Your task to perform on an android device: toggle translation in the chrome app Image 0: 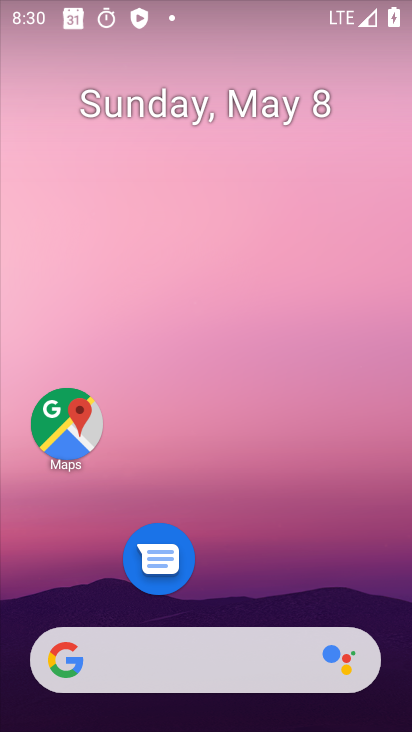
Step 0: drag from (350, 635) to (305, 33)
Your task to perform on an android device: toggle translation in the chrome app Image 1: 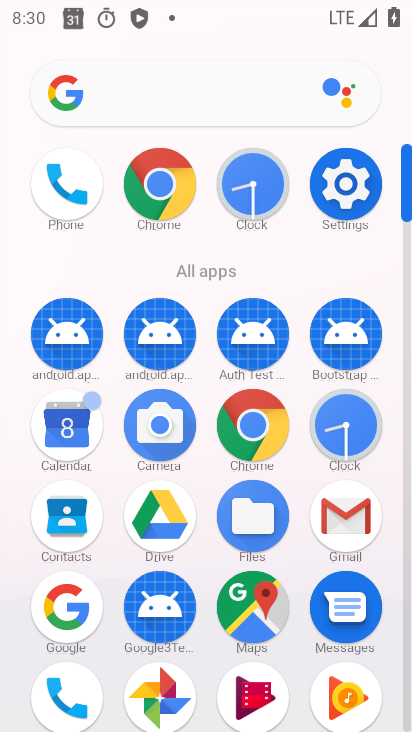
Step 1: click (271, 414)
Your task to perform on an android device: toggle translation in the chrome app Image 2: 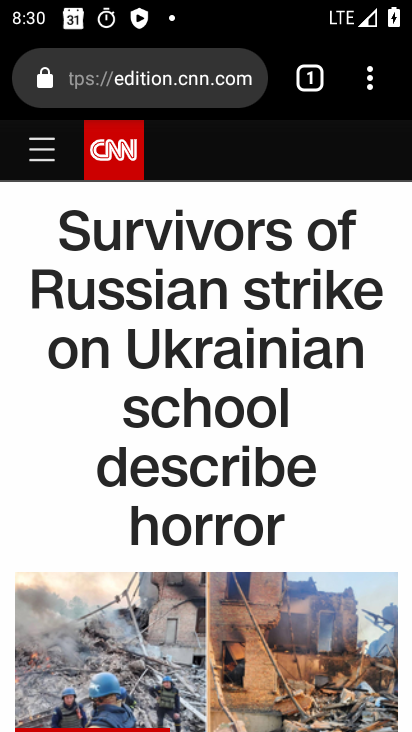
Step 2: drag from (366, 73) to (195, 628)
Your task to perform on an android device: toggle translation in the chrome app Image 3: 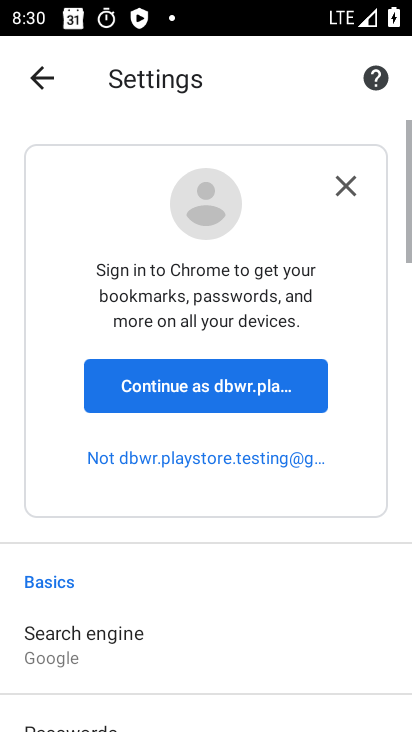
Step 3: drag from (303, 672) to (319, 4)
Your task to perform on an android device: toggle translation in the chrome app Image 4: 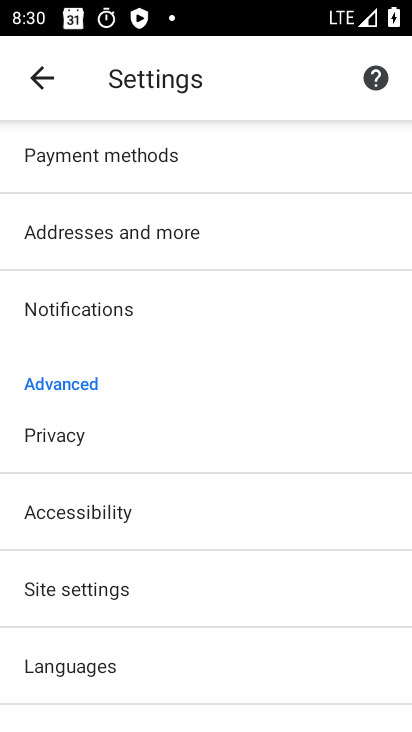
Step 4: click (187, 665)
Your task to perform on an android device: toggle translation in the chrome app Image 5: 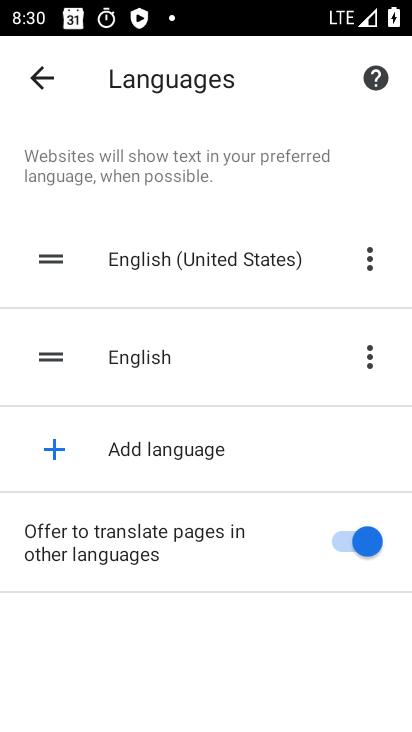
Step 5: click (351, 544)
Your task to perform on an android device: toggle translation in the chrome app Image 6: 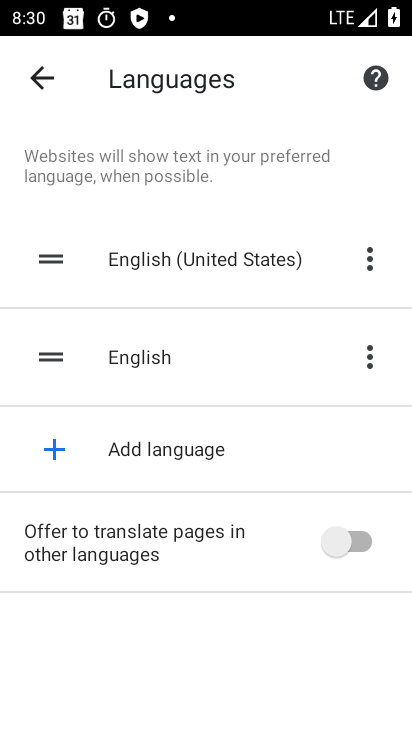
Step 6: task complete